Your task to perform on an android device: toggle priority inbox in the gmail app Image 0: 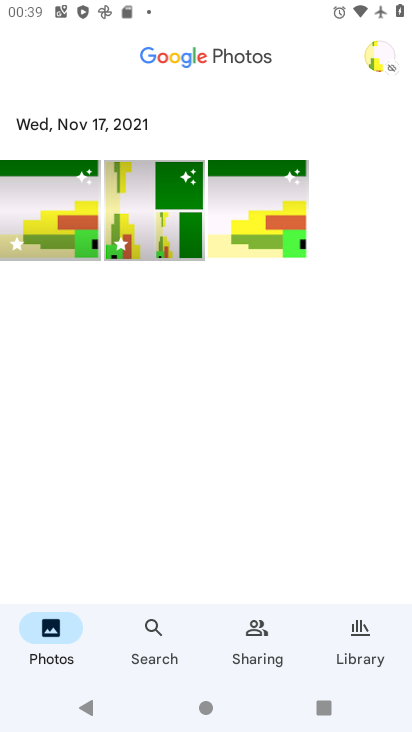
Step 0: press home button
Your task to perform on an android device: toggle priority inbox in the gmail app Image 1: 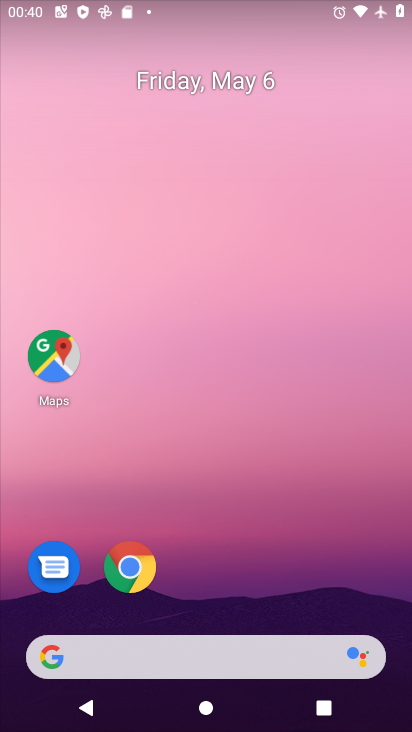
Step 1: drag from (261, 581) to (227, 73)
Your task to perform on an android device: toggle priority inbox in the gmail app Image 2: 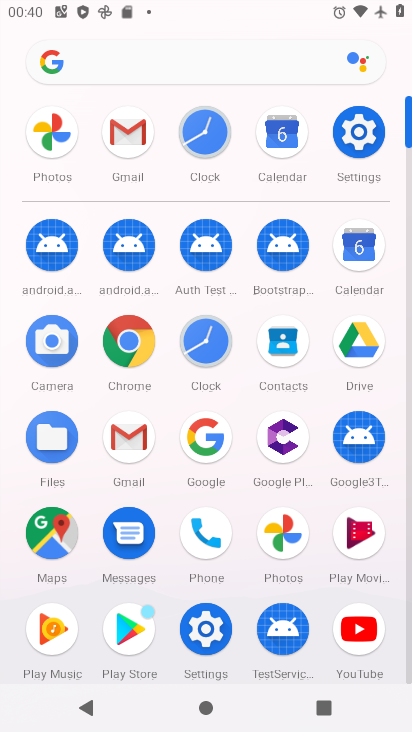
Step 2: click (120, 119)
Your task to perform on an android device: toggle priority inbox in the gmail app Image 3: 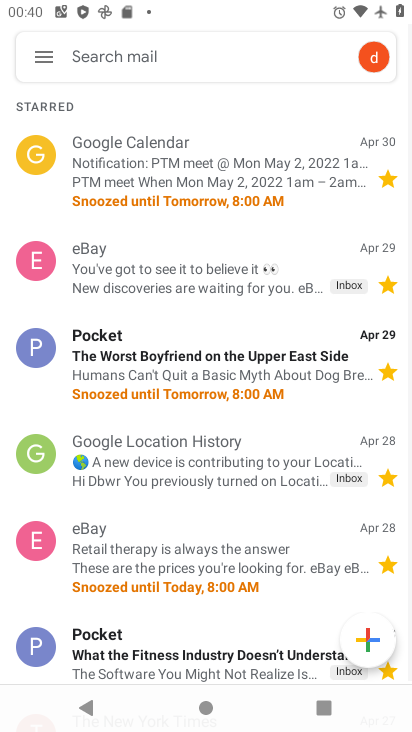
Step 3: click (48, 66)
Your task to perform on an android device: toggle priority inbox in the gmail app Image 4: 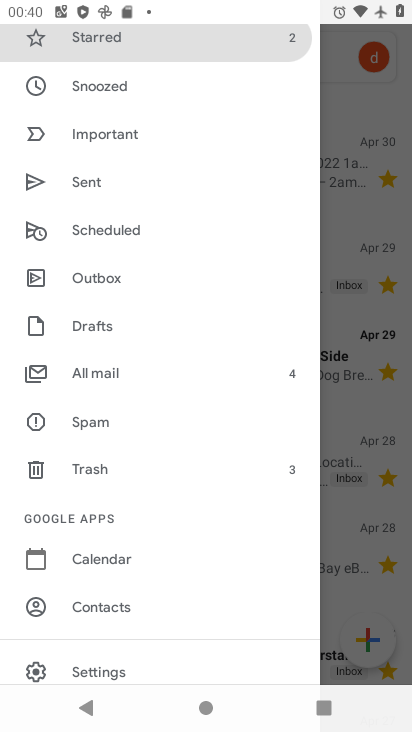
Step 4: click (98, 666)
Your task to perform on an android device: toggle priority inbox in the gmail app Image 5: 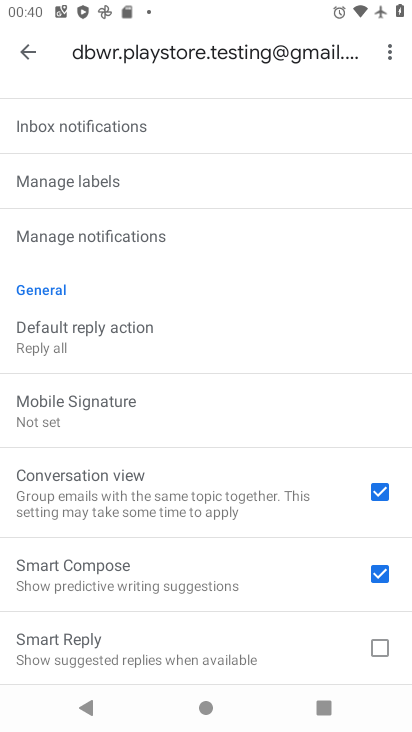
Step 5: drag from (151, 574) to (167, 607)
Your task to perform on an android device: toggle priority inbox in the gmail app Image 6: 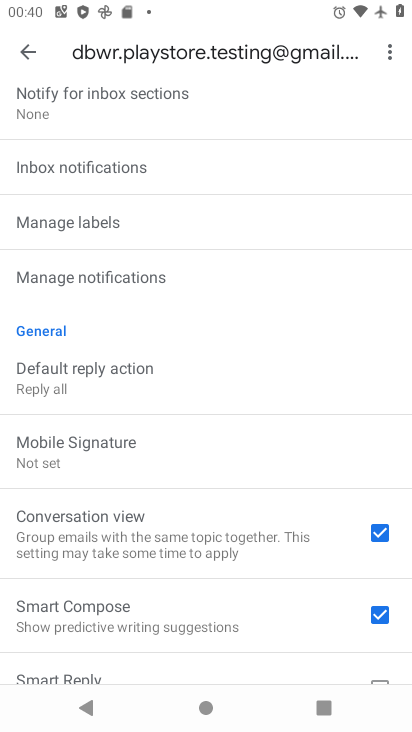
Step 6: drag from (146, 593) to (165, 378)
Your task to perform on an android device: toggle priority inbox in the gmail app Image 7: 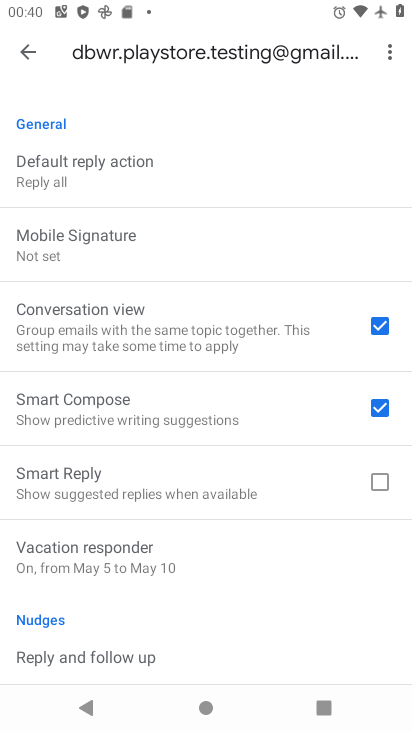
Step 7: drag from (175, 166) to (161, 490)
Your task to perform on an android device: toggle priority inbox in the gmail app Image 8: 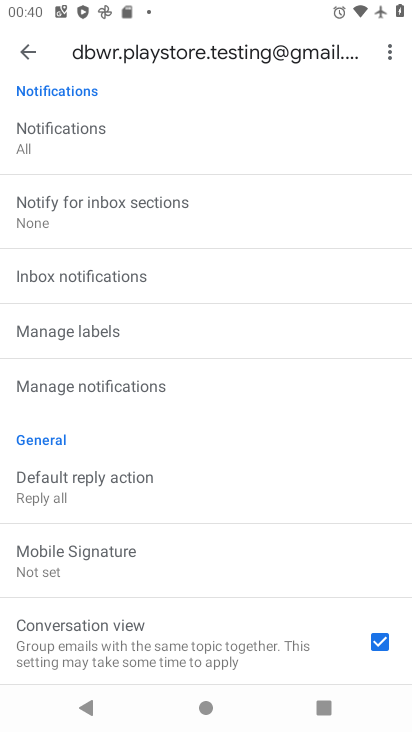
Step 8: drag from (168, 259) to (187, 356)
Your task to perform on an android device: toggle priority inbox in the gmail app Image 9: 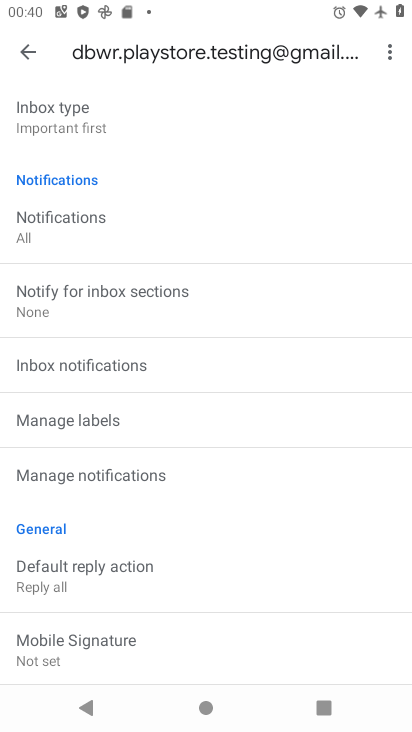
Step 9: drag from (166, 194) to (180, 439)
Your task to perform on an android device: toggle priority inbox in the gmail app Image 10: 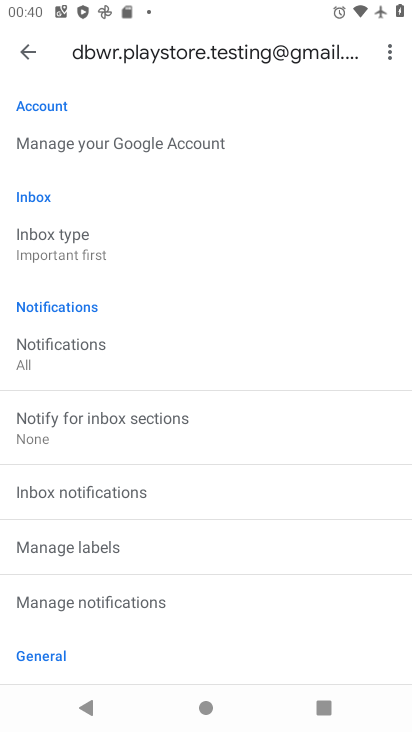
Step 10: click (115, 236)
Your task to perform on an android device: toggle priority inbox in the gmail app Image 11: 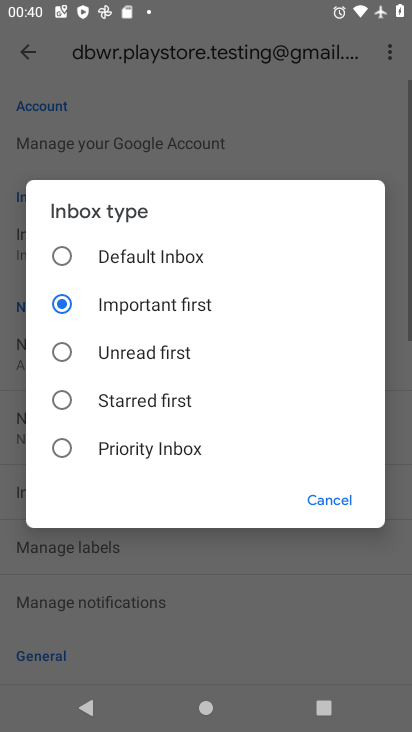
Step 11: click (152, 448)
Your task to perform on an android device: toggle priority inbox in the gmail app Image 12: 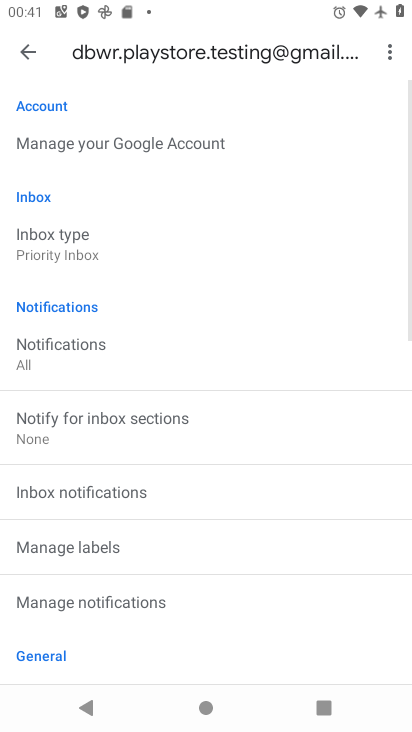
Step 12: task complete